Your task to perform on an android device: clear history in the chrome app Image 0: 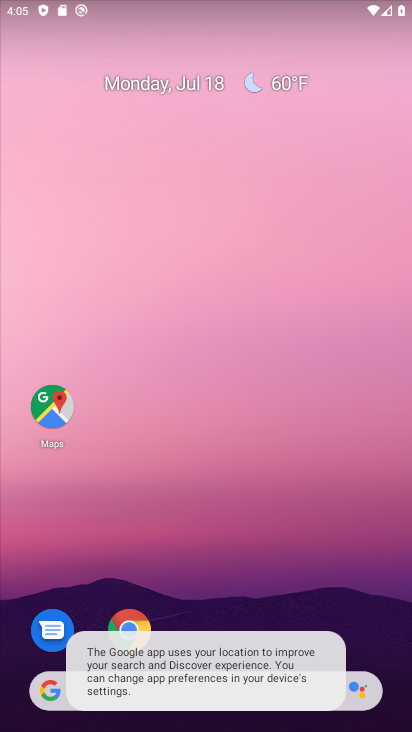
Step 0: drag from (273, 420) to (324, 109)
Your task to perform on an android device: clear history in the chrome app Image 1: 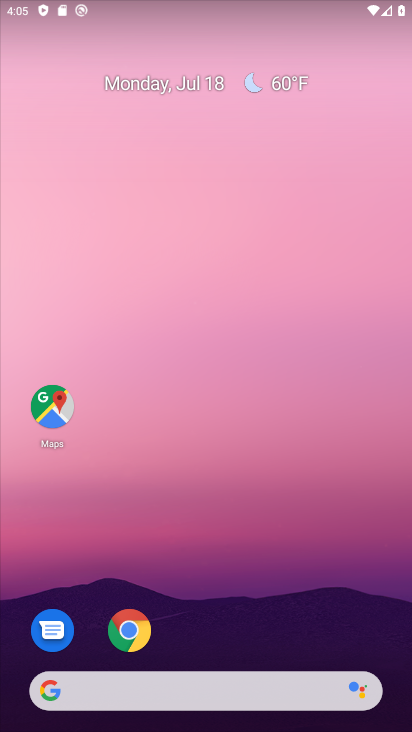
Step 1: drag from (219, 640) to (319, 99)
Your task to perform on an android device: clear history in the chrome app Image 2: 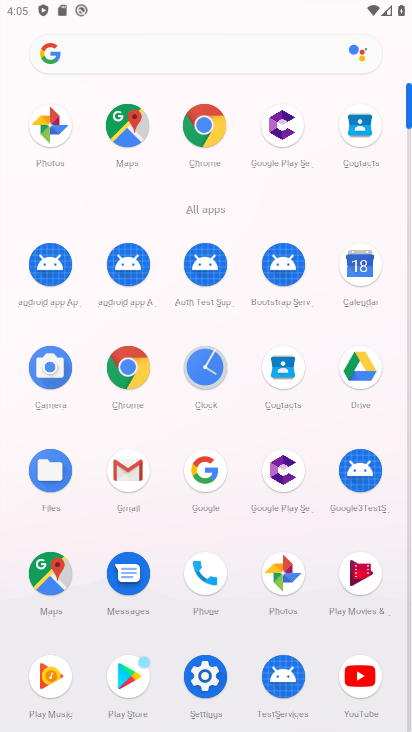
Step 2: click (134, 376)
Your task to perform on an android device: clear history in the chrome app Image 3: 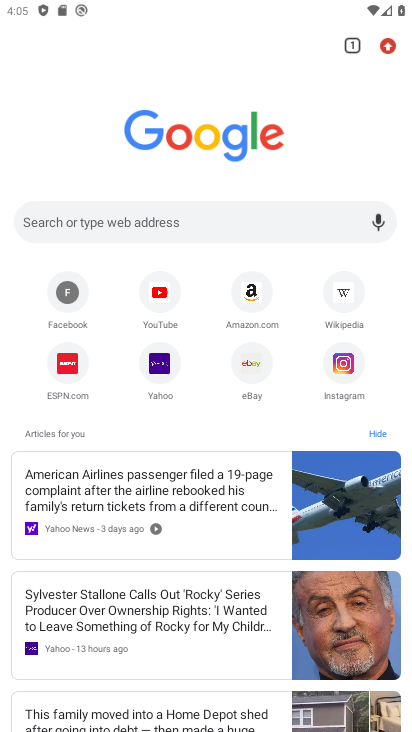
Step 3: drag from (394, 47) to (298, 304)
Your task to perform on an android device: clear history in the chrome app Image 4: 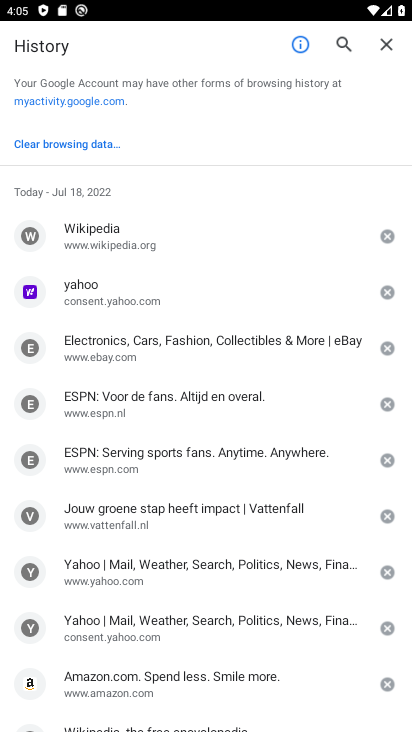
Step 4: click (107, 151)
Your task to perform on an android device: clear history in the chrome app Image 5: 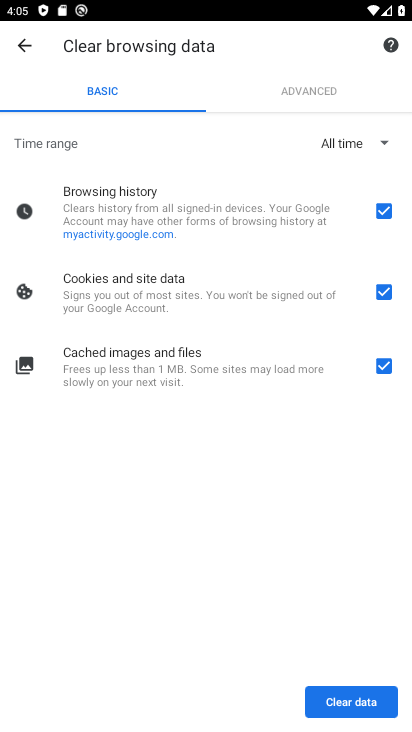
Step 5: click (366, 710)
Your task to perform on an android device: clear history in the chrome app Image 6: 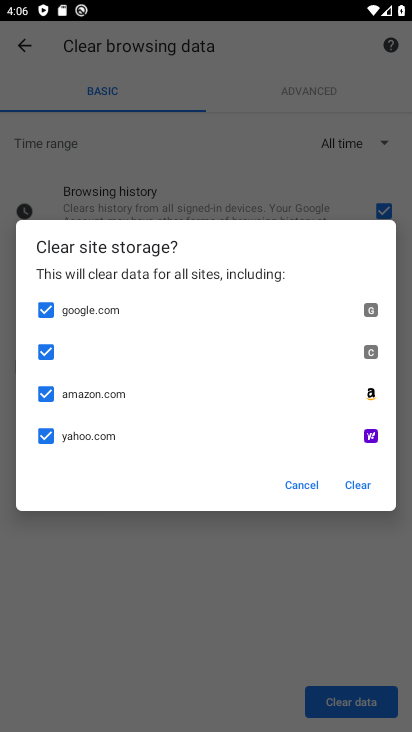
Step 6: click (366, 484)
Your task to perform on an android device: clear history in the chrome app Image 7: 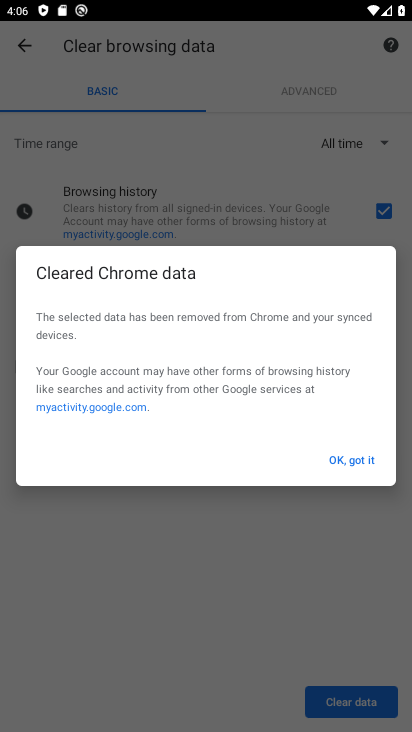
Step 7: click (352, 464)
Your task to perform on an android device: clear history in the chrome app Image 8: 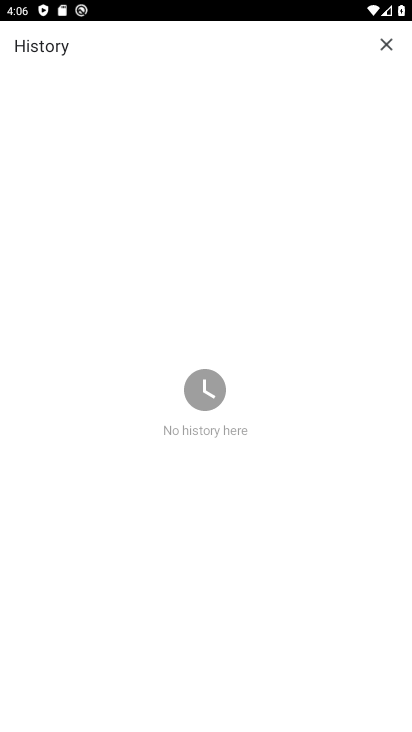
Step 8: task complete